Your task to perform on an android device: When is my next meeting? Image 0: 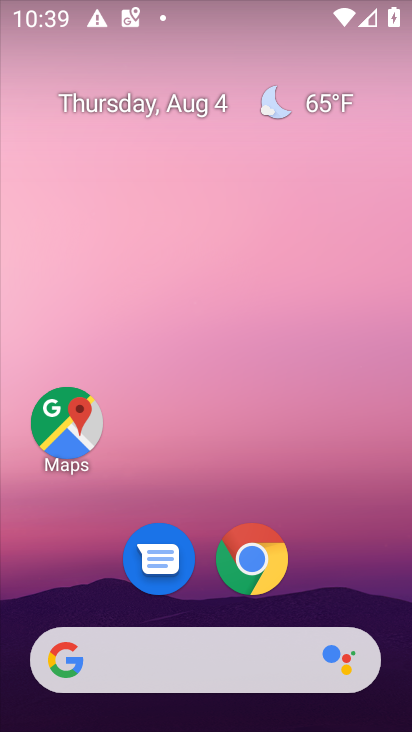
Step 0: drag from (204, 665) to (176, 46)
Your task to perform on an android device: When is my next meeting? Image 1: 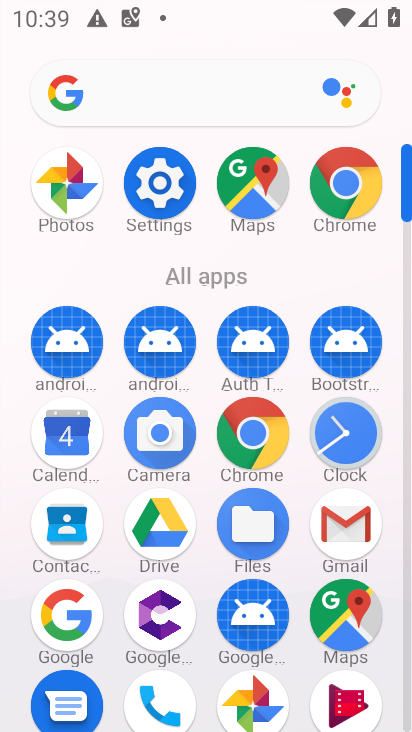
Step 1: click (76, 436)
Your task to perform on an android device: When is my next meeting? Image 2: 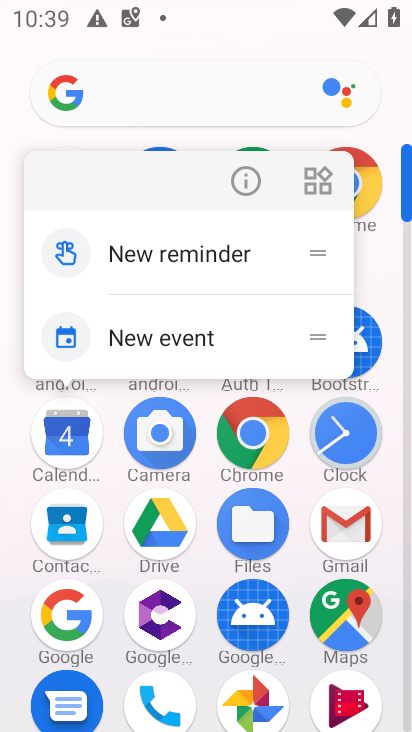
Step 2: click (78, 431)
Your task to perform on an android device: When is my next meeting? Image 3: 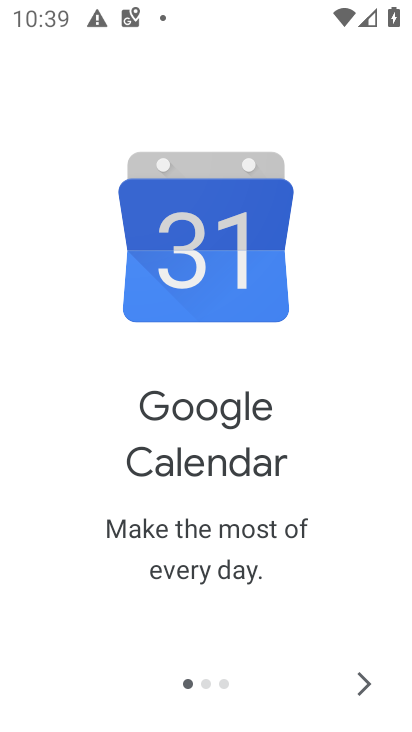
Step 3: click (363, 677)
Your task to perform on an android device: When is my next meeting? Image 4: 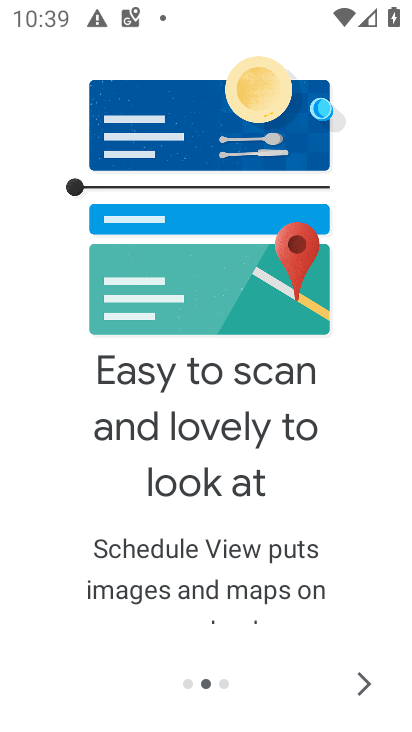
Step 4: click (359, 672)
Your task to perform on an android device: When is my next meeting? Image 5: 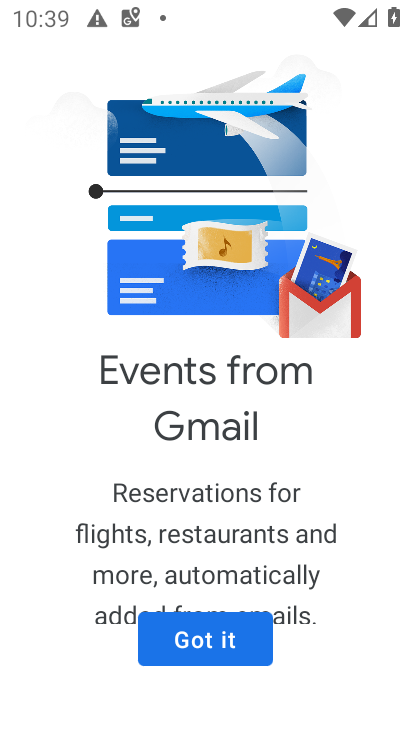
Step 5: click (234, 639)
Your task to perform on an android device: When is my next meeting? Image 6: 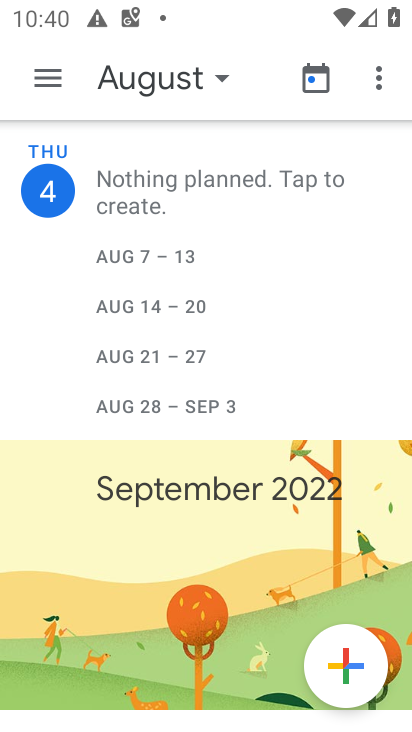
Step 6: click (55, 89)
Your task to perform on an android device: When is my next meeting? Image 7: 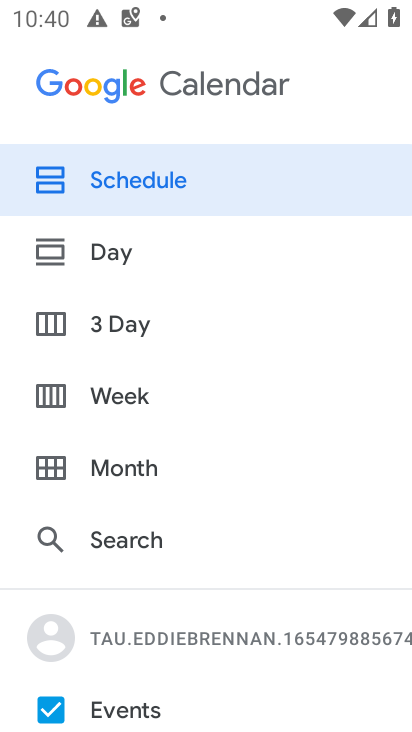
Step 7: click (116, 175)
Your task to perform on an android device: When is my next meeting? Image 8: 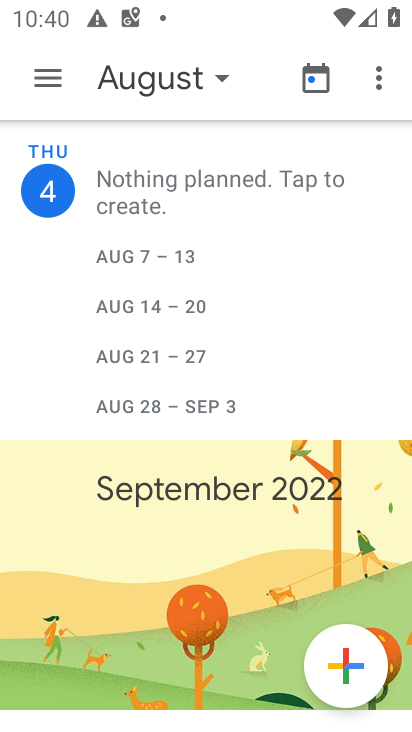
Step 8: task complete